Your task to perform on an android device: turn off translation in the chrome app Image 0: 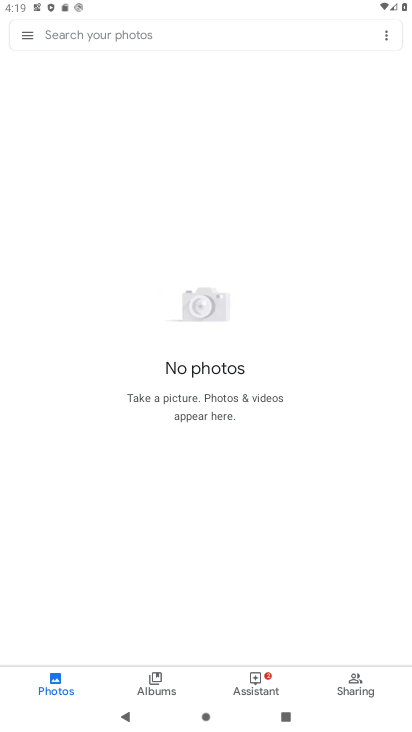
Step 0: press home button
Your task to perform on an android device: turn off translation in the chrome app Image 1: 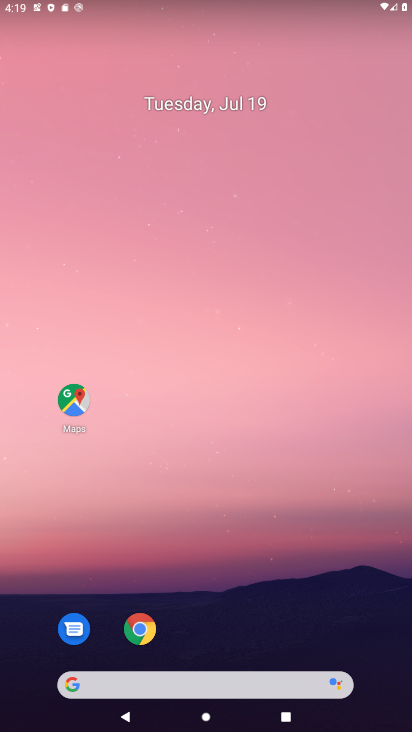
Step 1: drag from (190, 644) to (218, 144)
Your task to perform on an android device: turn off translation in the chrome app Image 2: 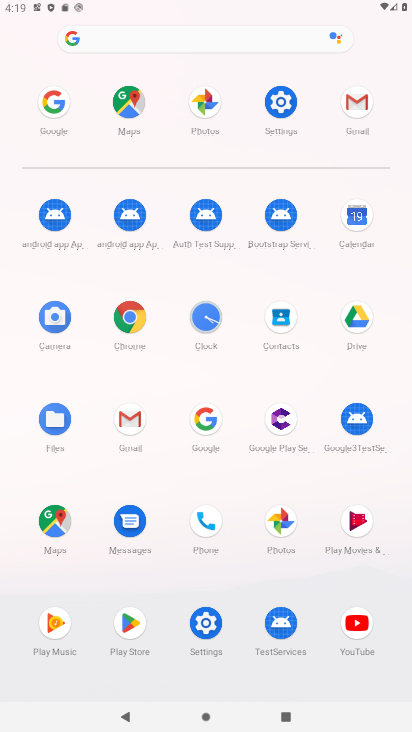
Step 2: click (125, 326)
Your task to perform on an android device: turn off translation in the chrome app Image 3: 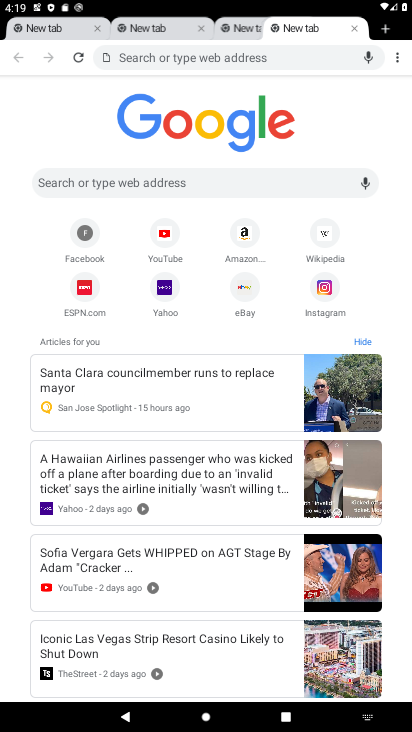
Step 3: click (392, 61)
Your task to perform on an android device: turn off translation in the chrome app Image 4: 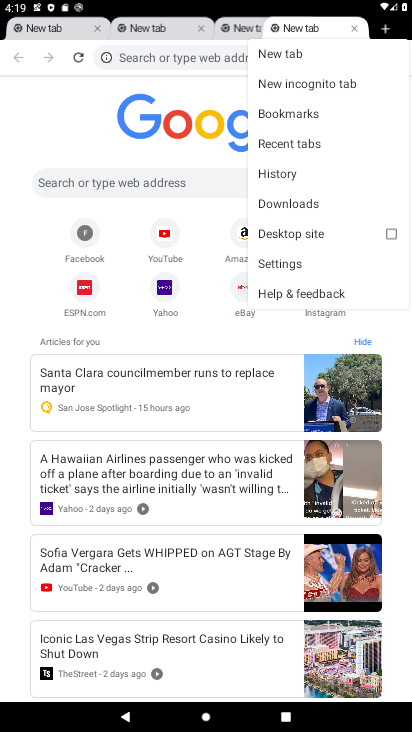
Step 4: click (298, 263)
Your task to perform on an android device: turn off translation in the chrome app Image 5: 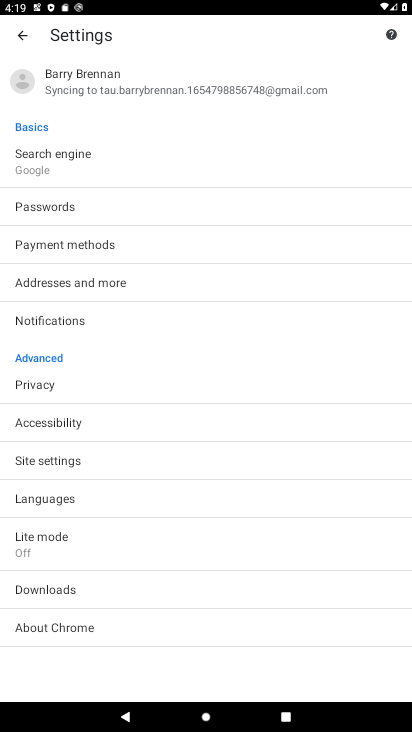
Step 5: click (61, 501)
Your task to perform on an android device: turn off translation in the chrome app Image 6: 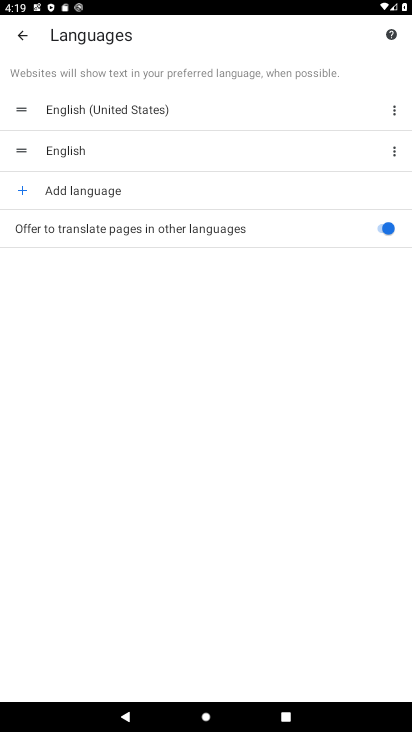
Step 6: click (386, 229)
Your task to perform on an android device: turn off translation in the chrome app Image 7: 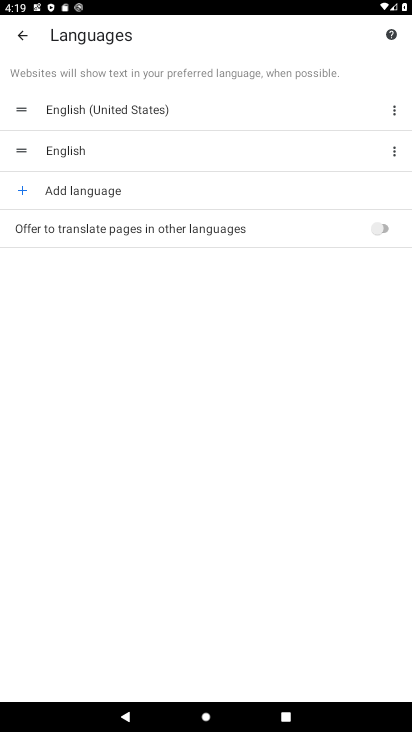
Step 7: task complete